Your task to perform on an android device: Open internet settings Image 0: 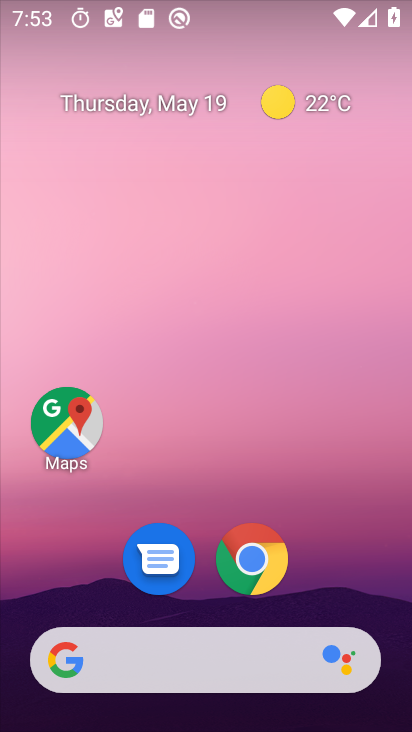
Step 0: drag from (207, 582) to (190, 18)
Your task to perform on an android device: Open internet settings Image 1: 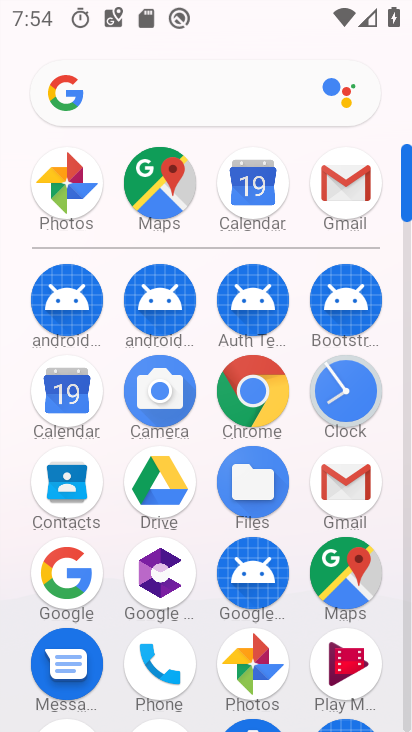
Step 1: drag from (190, 569) to (262, 202)
Your task to perform on an android device: Open internet settings Image 2: 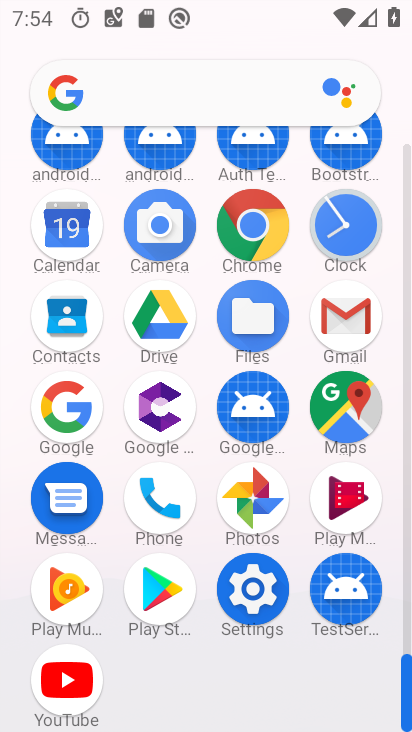
Step 2: click (257, 599)
Your task to perform on an android device: Open internet settings Image 3: 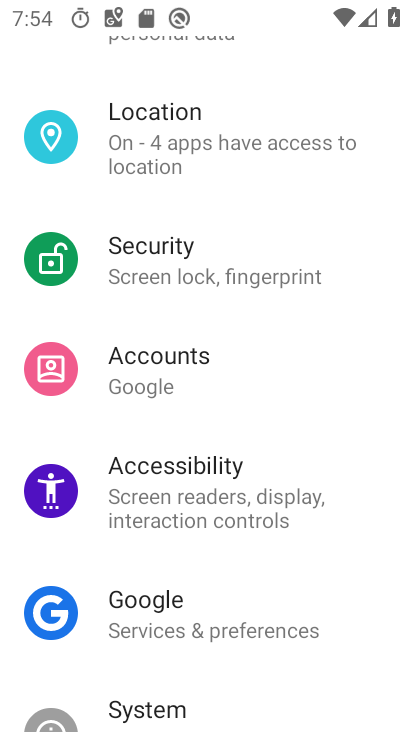
Step 3: drag from (123, 284) to (222, 573)
Your task to perform on an android device: Open internet settings Image 4: 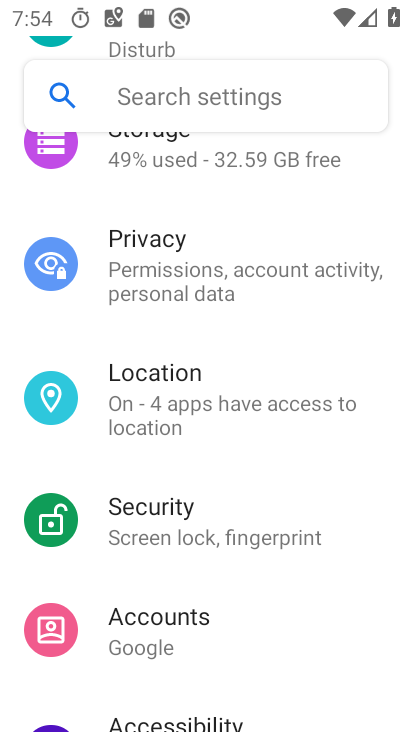
Step 4: drag from (135, 215) to (190, 622)
Your task to perform on an android device: Open internet settings Image 5: 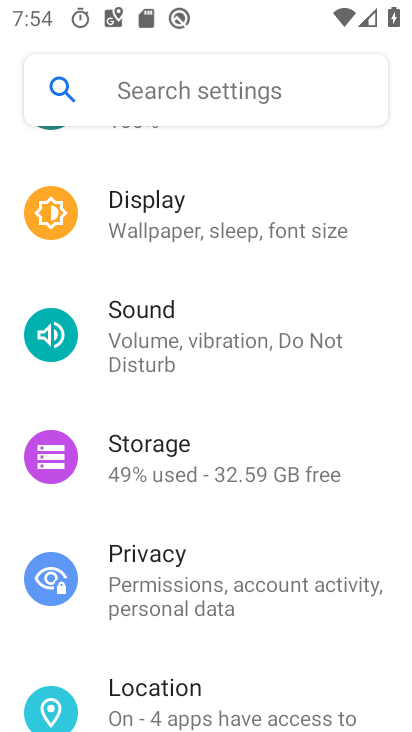
Step 5: drag from (237, 280) to (239, 588)
Your task to perform on an android device: Open internet settings Image 6: 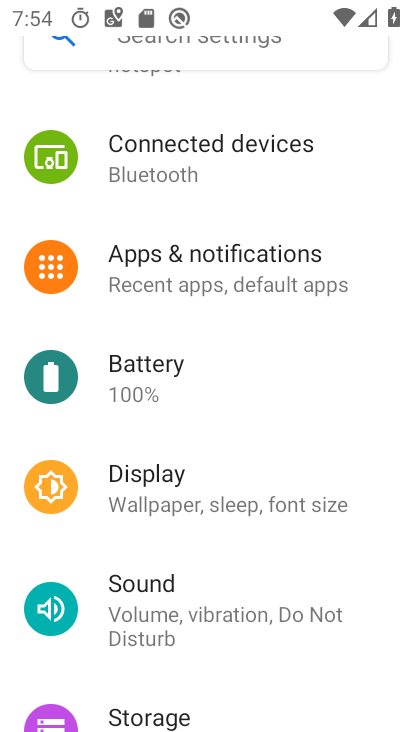
Step 6: drag from (250, 282) to (176, 492)
Your task to perform on an android device: Open internet settings Image 7: 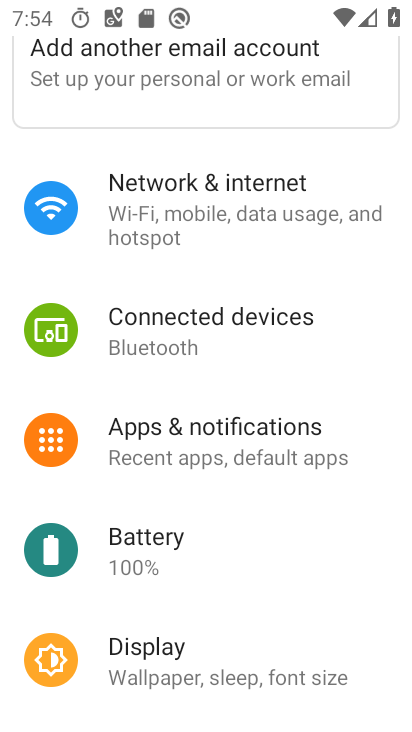
Step 7: click (181, 228)
Your task to perform on an android device: Open internet settings Image 8: 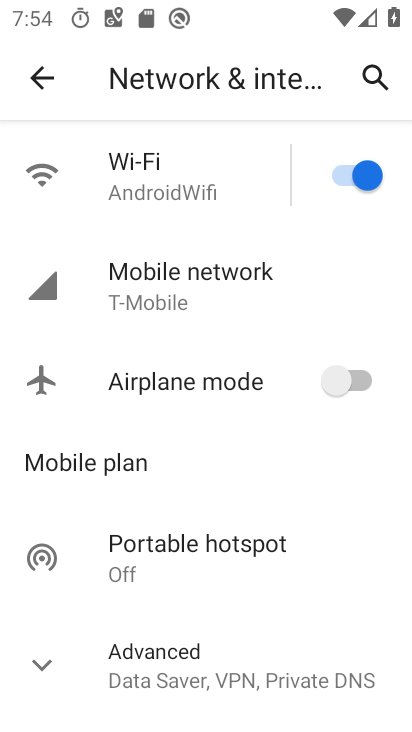
Step 8: click (143, 260)
Your task to perform on an android device: Open internet settings Image 9: 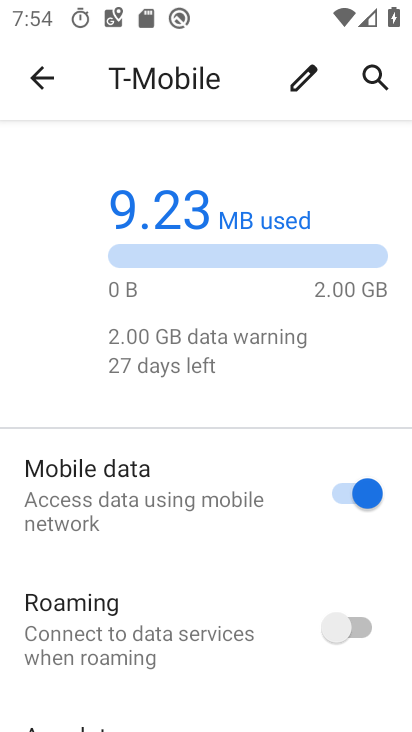
Step 9: task complete